Your task to perform on an android device: Search for pizza restaurants on Maps Image 0: 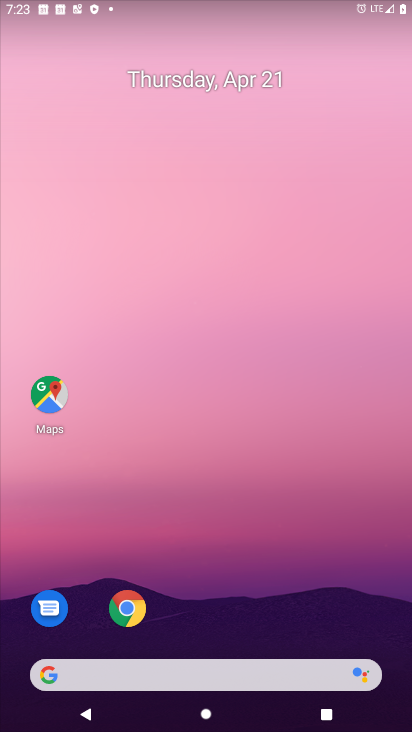
Step 0: click (46, 398)
Your task to perform on an android device: Search for pizza restaurants on Maps Image 1: 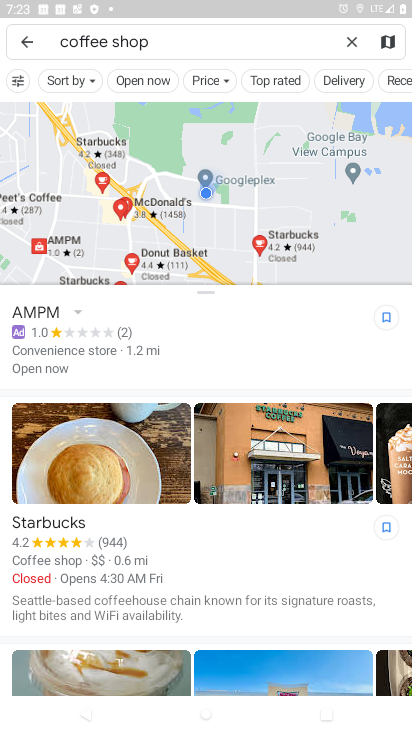
Step 1: click (354, 44)
Your task to perform on an android device: Search for pizza restaurants on Maps Image 2: 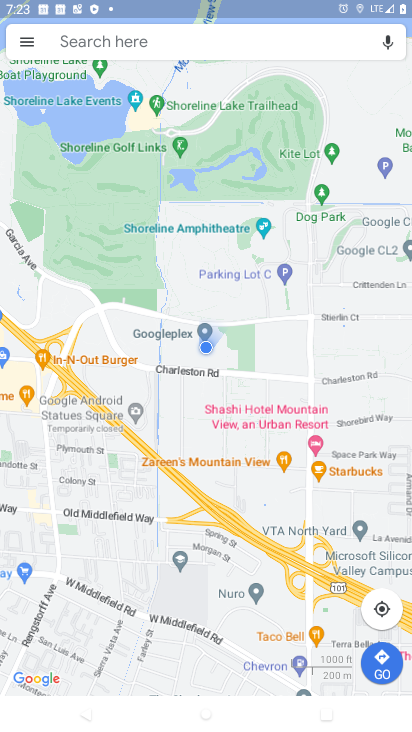
Step 2: click (259, 41)
Your task to perform on an android device: Search for pizza restaurants on Maps Image 3: 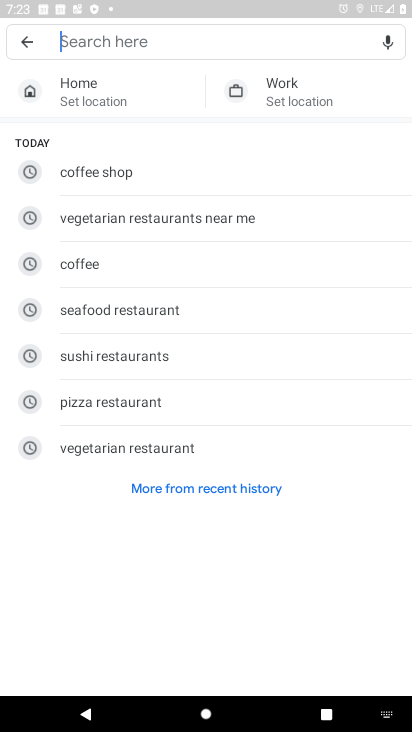
Step 3: click (101, 407)
Your task to perform on an android device: Search for pizza restaurants on Maps Image 4: 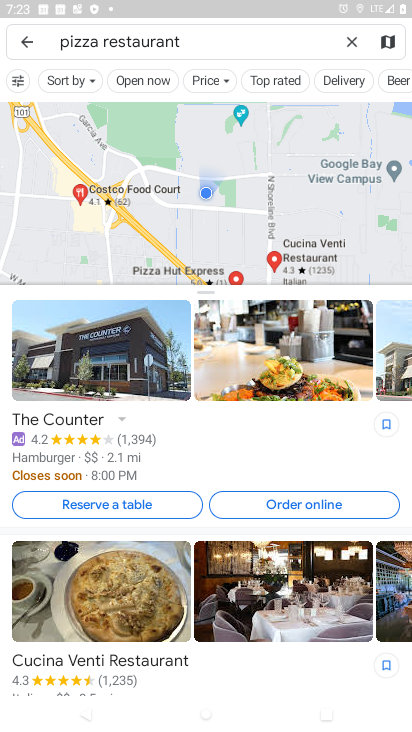
Step 4: task complete